Your task to perform on an android device: Open Google Chrome and open the bookmarks view Image 0: 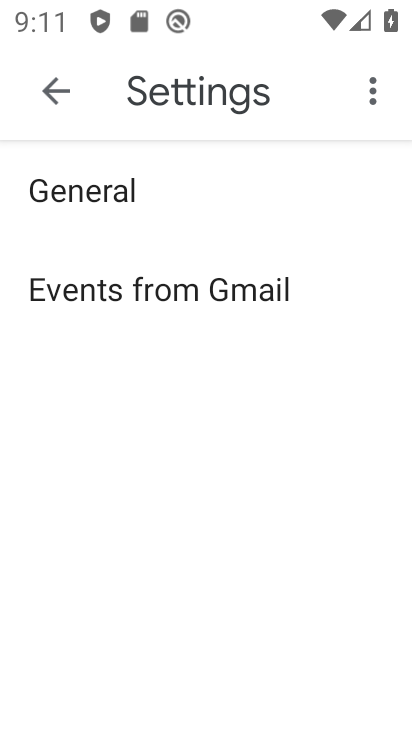
Step 0: press home button
Your task to perform on an android device: Open Google Chrome and open the bookmarks view Image 1: 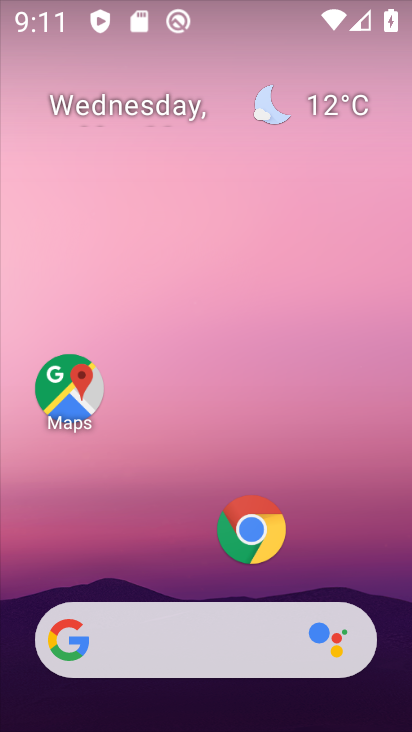
Step 1: click (249, 530)
Your task to perform on an android device: Open Google Chrome and open the bookmarks view Image 2: 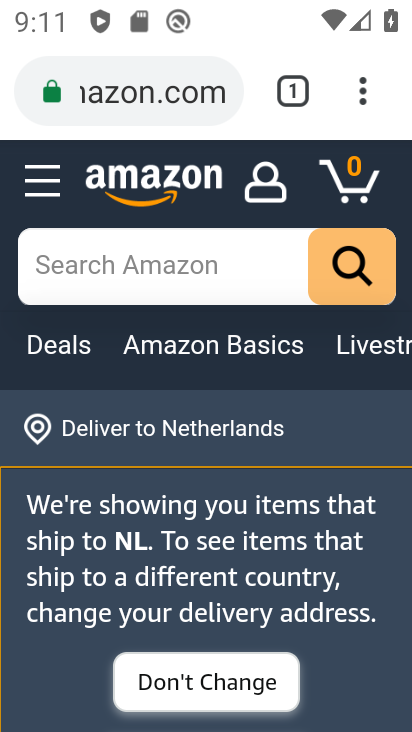
Step 2: click (367, 90)
Your task to perform on an android device: Open Google Chrome and open the bookmarks view Image 3: 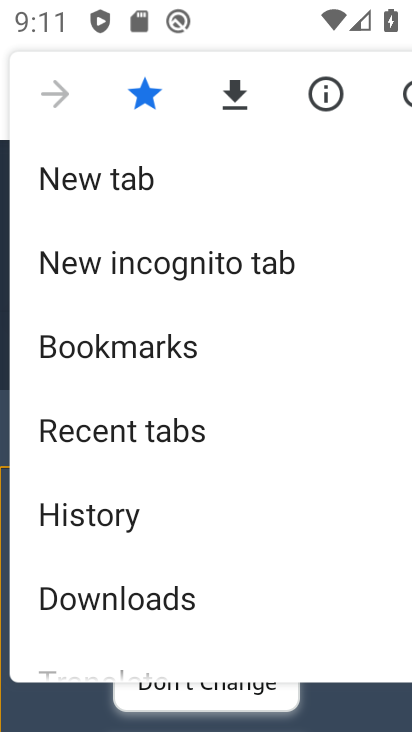
Step 3: drag from (174, 618) to (254, 259)
Your task to perform on an android device: Open Google Chrome and open the bookmarks view Image 4: 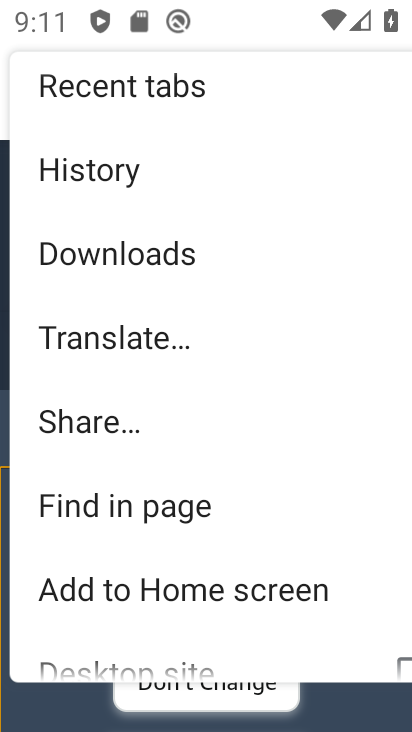
Step 4: drag from (282, 139) to (289, 474)
Your task to perform on an android device: Open Google Chrome and open the bookmarks view Image 5: 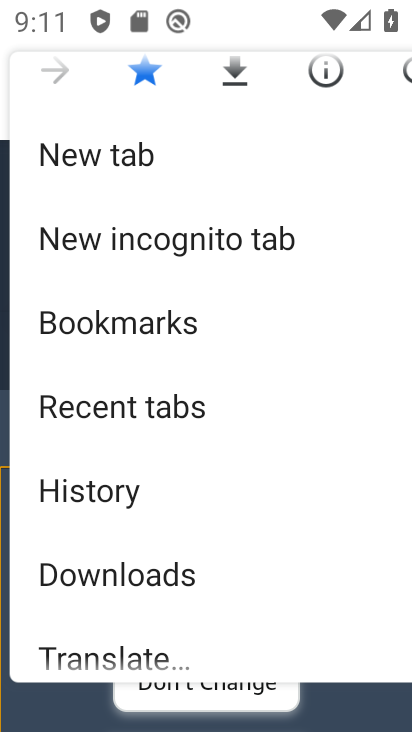
Step 5: click (148, 314)
Your task to perform on an android device: Open Google Chrome and open the bookmarks view Image 6: 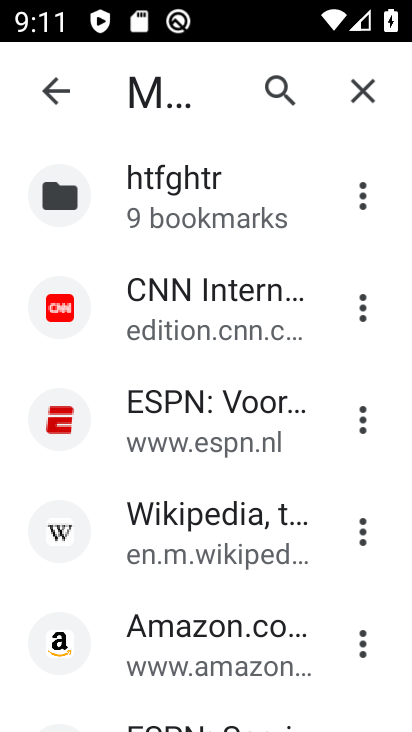
Step 6: task complete